Your task to perform on an android device: Open display settings Image 0: 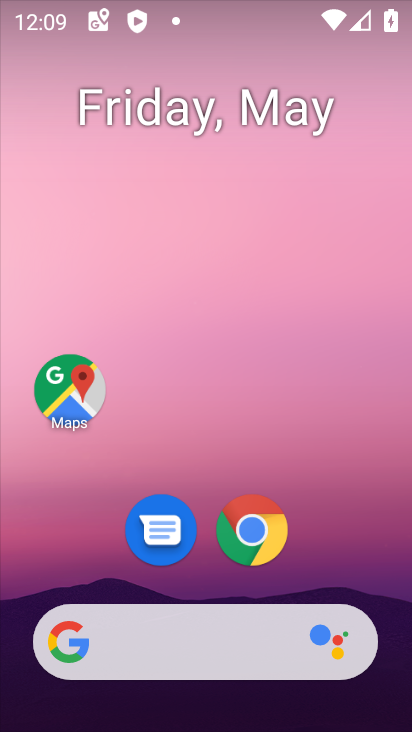
Step 0: drag from (325, 555) to (280, 113)
Your task to perform on an android device: Open display settings Image 1: 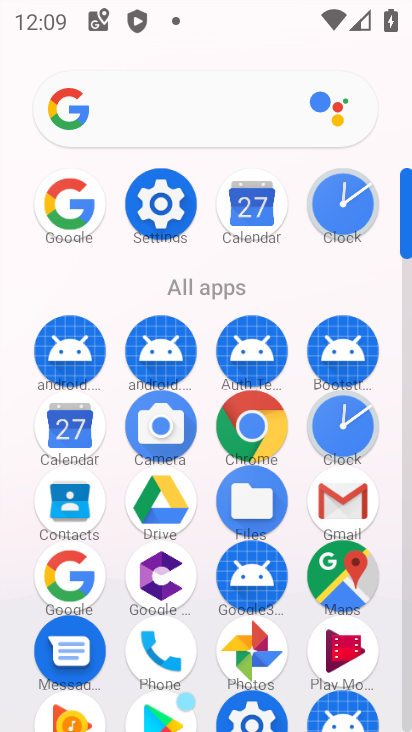
Step 1: click (161, 204)
Your task to perform on an android device: Open display settings Image 2: 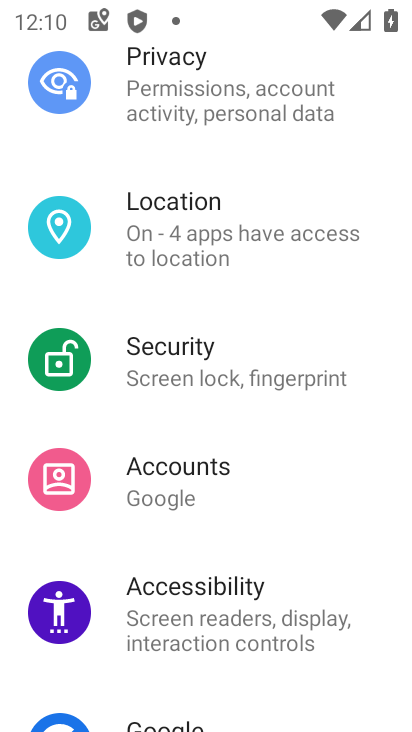
Step 2: drag from (212, 293) to (258, 438)
Your task to perform on an android device: Open display settings Image 3: 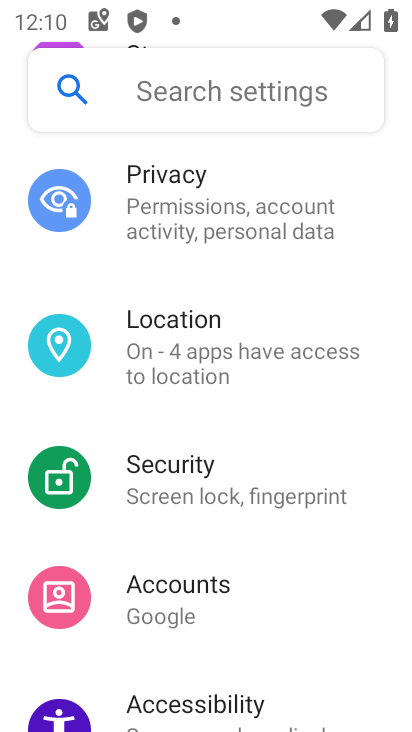
Step 3: drag from (213, 295) to (250, 495)
Your task to perform on an android device: Open display settings Image 4: 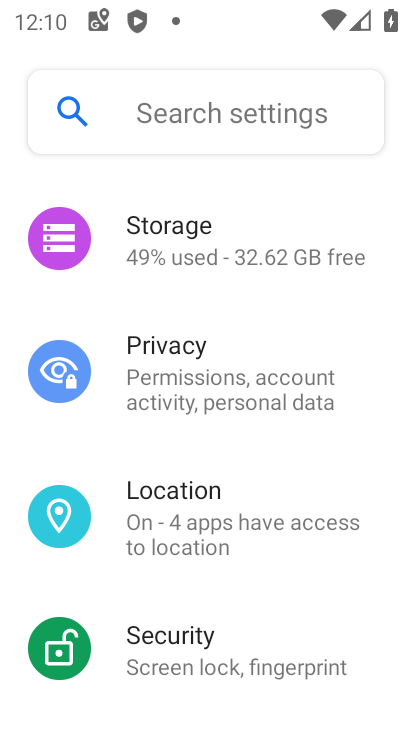
Step 4: drag from (190, 302) to (238, 465)
Your task to perform on an android device: Open display settings Image 5: 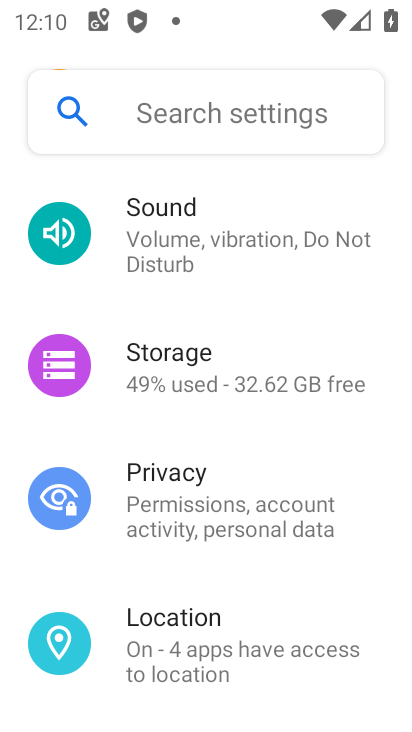
Step 5: drag from (197, 297) to (230, 420)
Your task to perform on an android device: Open display settings Image 6: 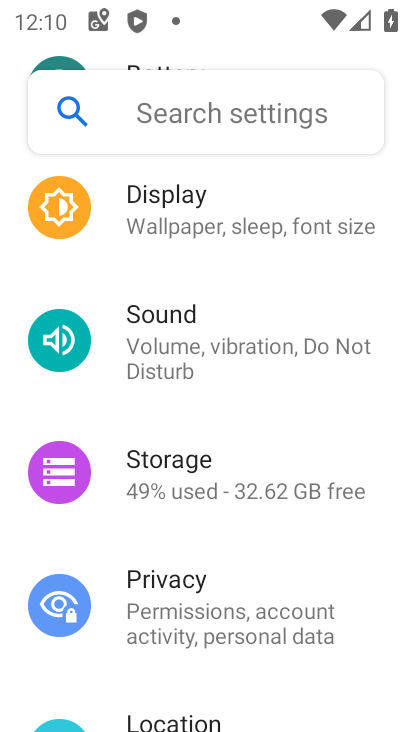
Step 6: drag from (201, 272) to (240, 407)
Your task to perform on an android device: Open display settings Image 7: 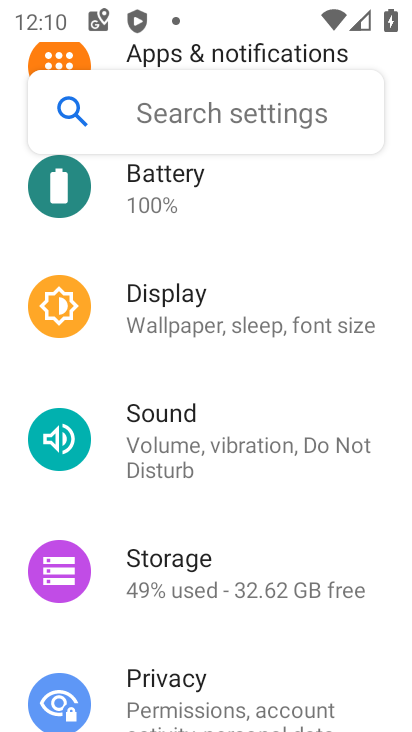
Step 7: click (181, 290)
Your task to perform on an android device: Open display settings Image 8: 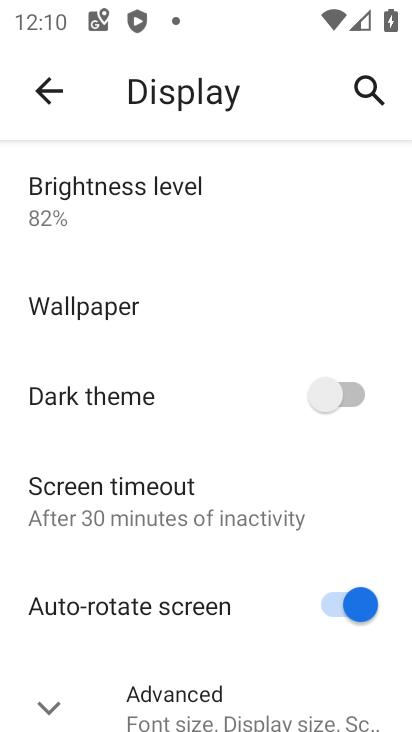
Step 8: task complete